Your task to perform on an android device: change text size in settings app Image 0: 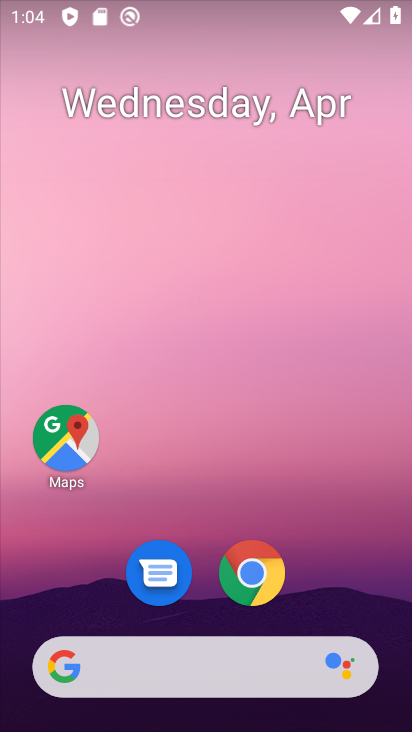
Step 0: drag from (200, 616) to (258, 0)
Your task to perform on an android device: change text size in settings app Image 1: 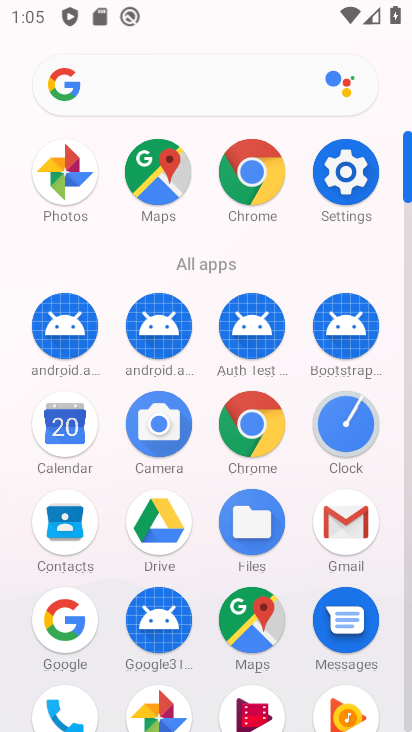
Step 1: click (348, 177)
Your task to perform on an android device: change text size in settings app Image 2: 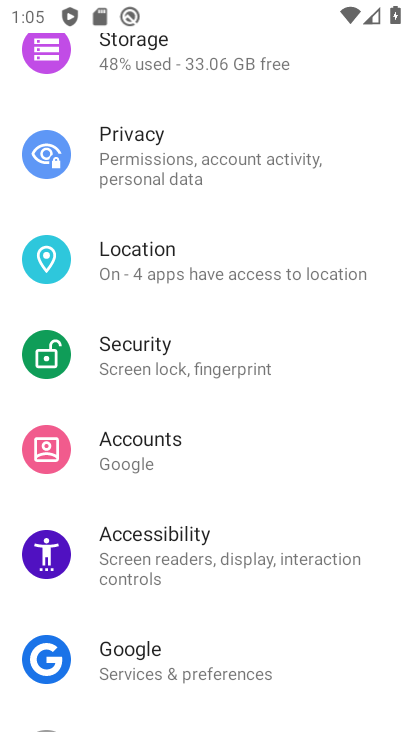
Step 2: drag from (185, 595) to (279, 171)
Your task to perform on an android device: change text size in settings app Image 3: 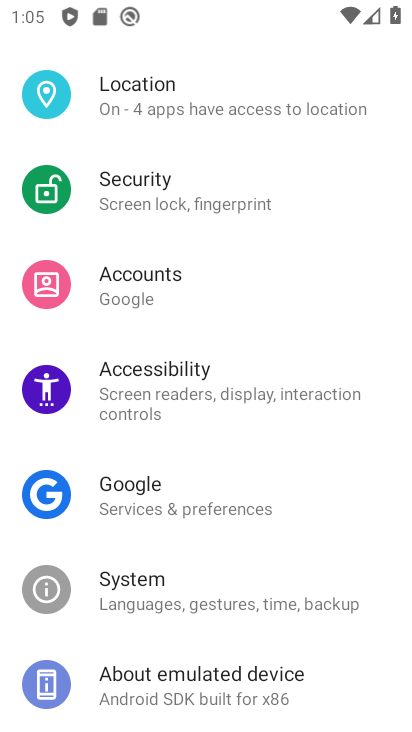
Step 3: drag from (243, 208) to (185, 685)
Your task to perform on an android device: change text size in settings app Image 4: 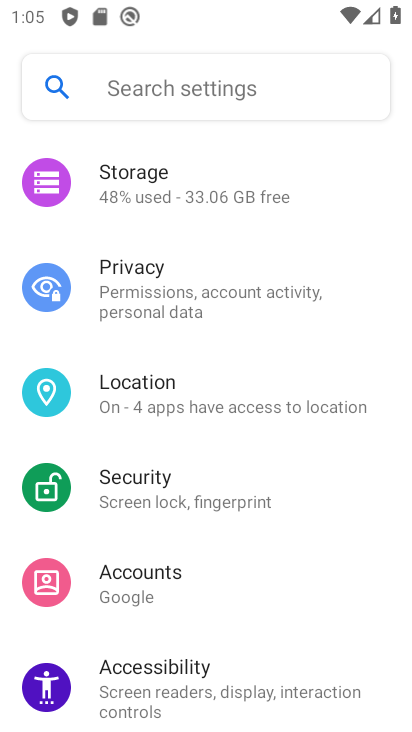
Step 4: drag from (195, 304) to (144, 731)
Your task to perform on an android device: change text size in settings app Image 5: 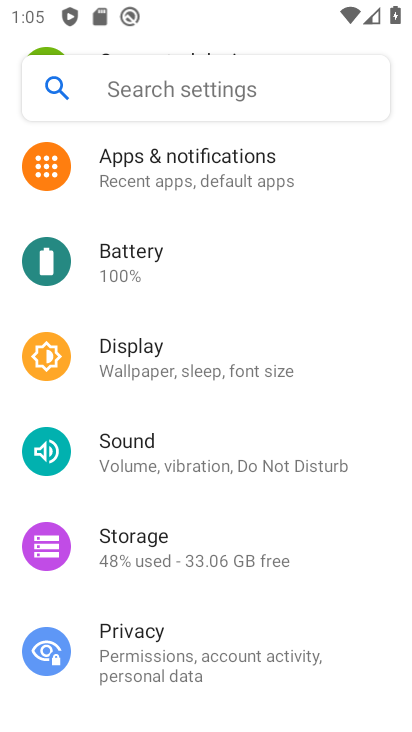
Step 5: click (170, 369)
Your task to perform on an android device: change text size in settings app Image 6: 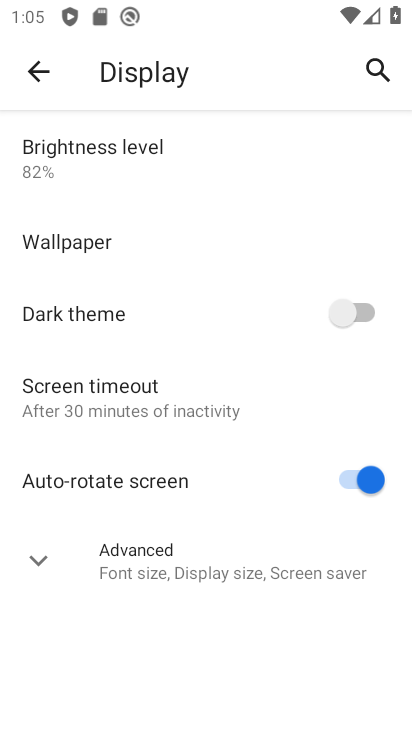
Step 6: click (141, 557)
Your task to perform on an android device: change text size in settings app Image 7: 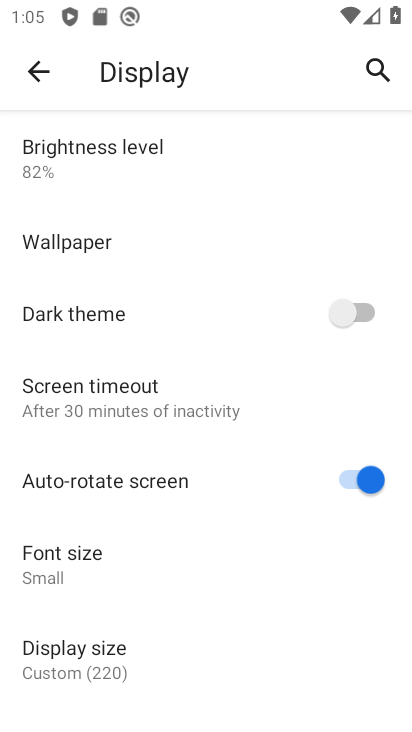
Step 7: click (61, 556)
Your task to perform on an android device: change text size in settings app Image 8: 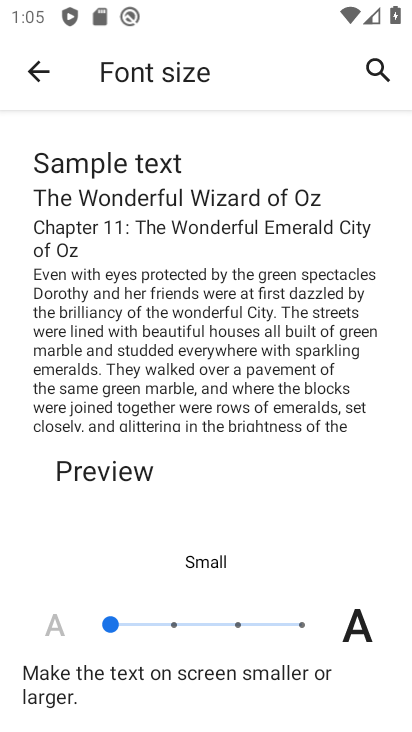
Step 8: click (306, 623)
Your task to perform on an android device: change text size in settings app Image 9: 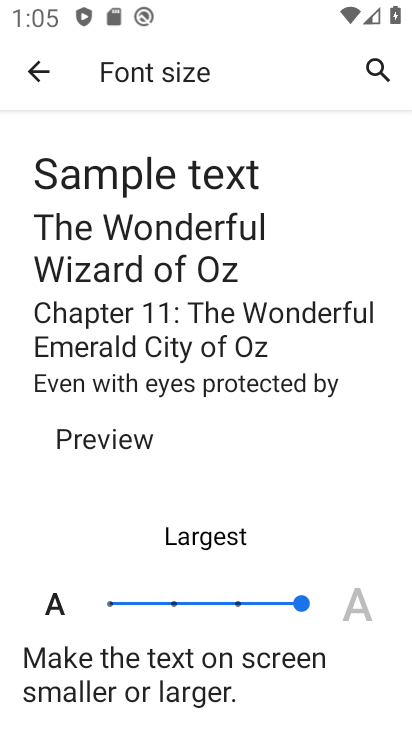
Step 9: task complete